Your task to perform on an android device: Open CNN.com Image 0: 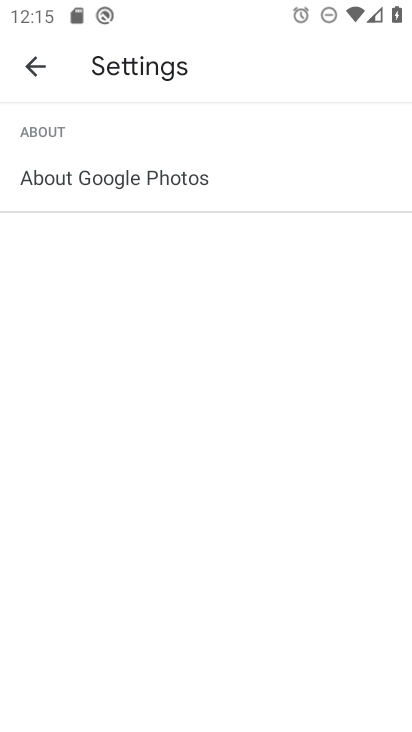
Step 0: press home button
Your task to perform on an android device: Open CNN.com Image 1: 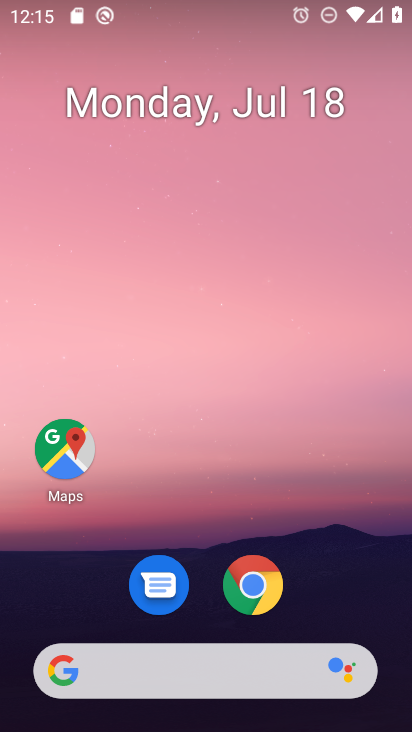
Step 1: click (239, 675)
Your task to perform on an android device: Open CNN.com Image 2: 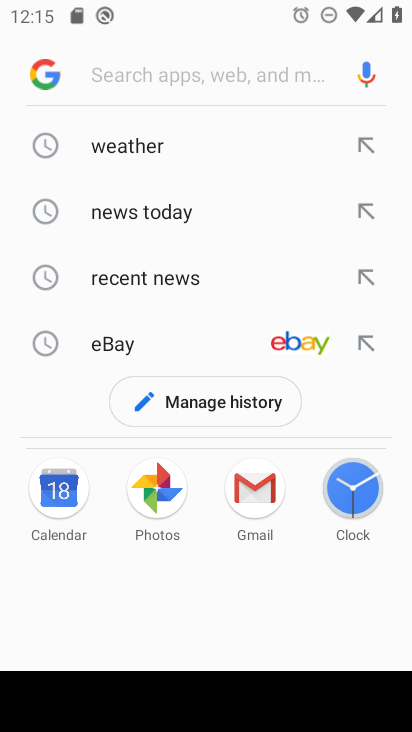
Step 2: type "cnn.com"
Your task to perform on an android device: Open CNN.com Image 3: 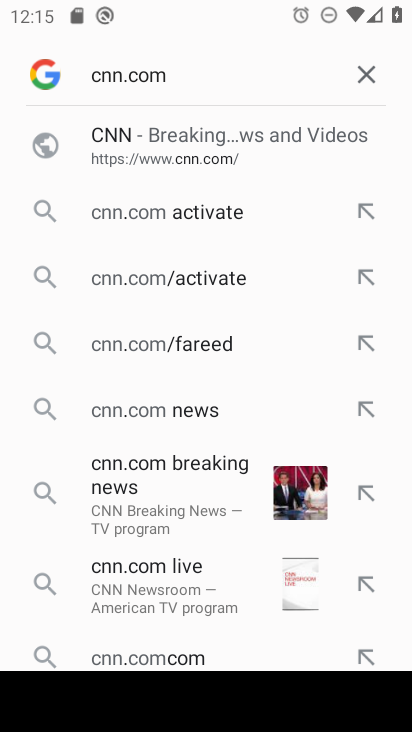
Step 3: click (161, 146)
Your task to perform on an android device: Open CNN.com Image 4: 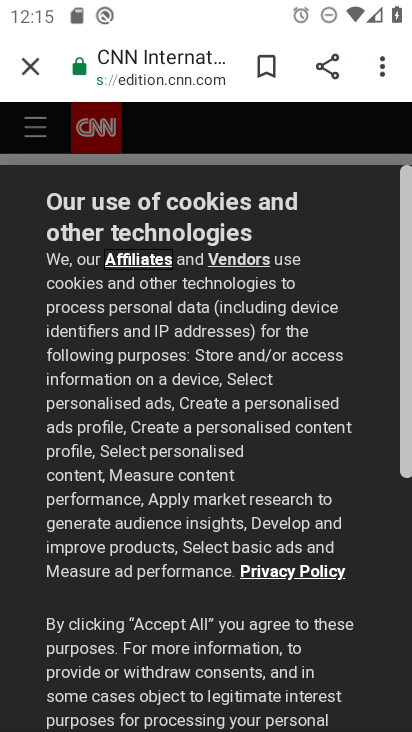
Step 4: drag from (245, 615) to (263, 145)
Your task to perform on an android device: Open CNN.com Image 5: 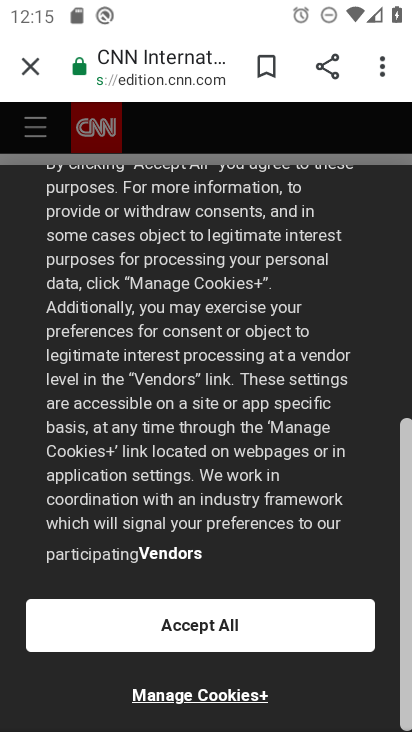
Step 5: click (225, 624)
Your task to perform on an android device: Open CNN.com Image 6: 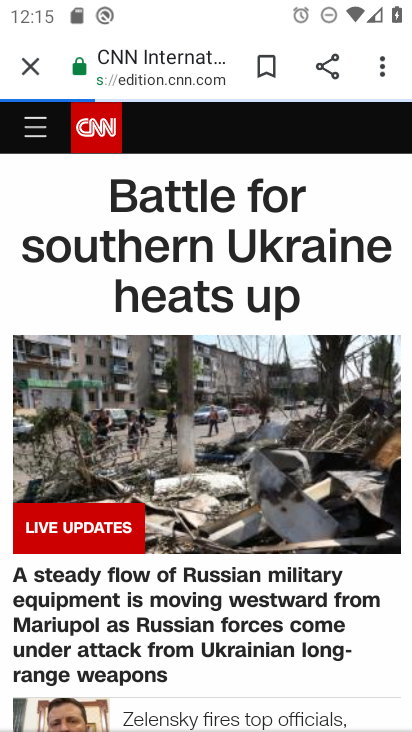
Step 6: task complete